Your task to perform on an android device: Open settings on Google Maps Image 0: 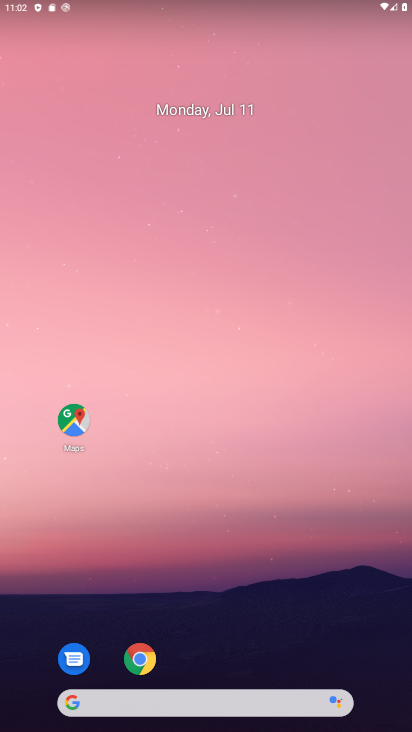
Step 0: drag from (295, 433) to (305, 2)
Your task to perform on an android device: Open settings on Google Maps Image 1: 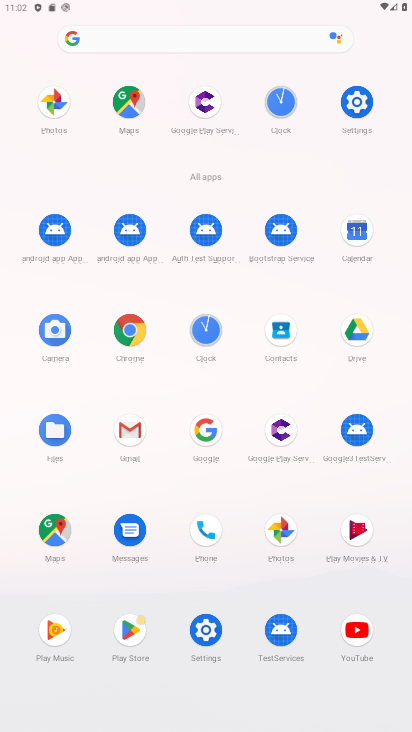
Step 1: drag from (382, 565) to (410, 110)
Your task to perform on an android device: Open settings on Google Maps Image 2: 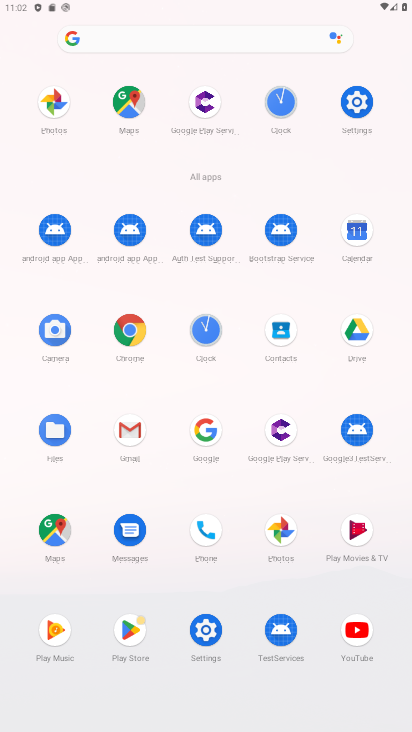
Step 2: click (65, 514)
Your task to perform on an android device: Open settings on Google Maps Image 3: 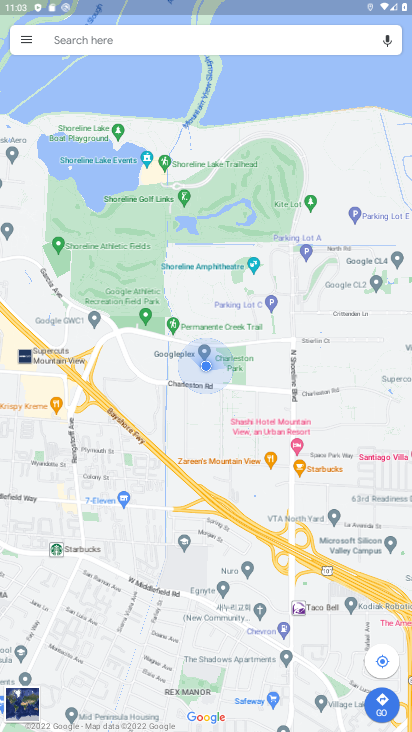
Step 3: task complete